Your task to perform on an android device: turn off smart reply in the gmail app Image 0: 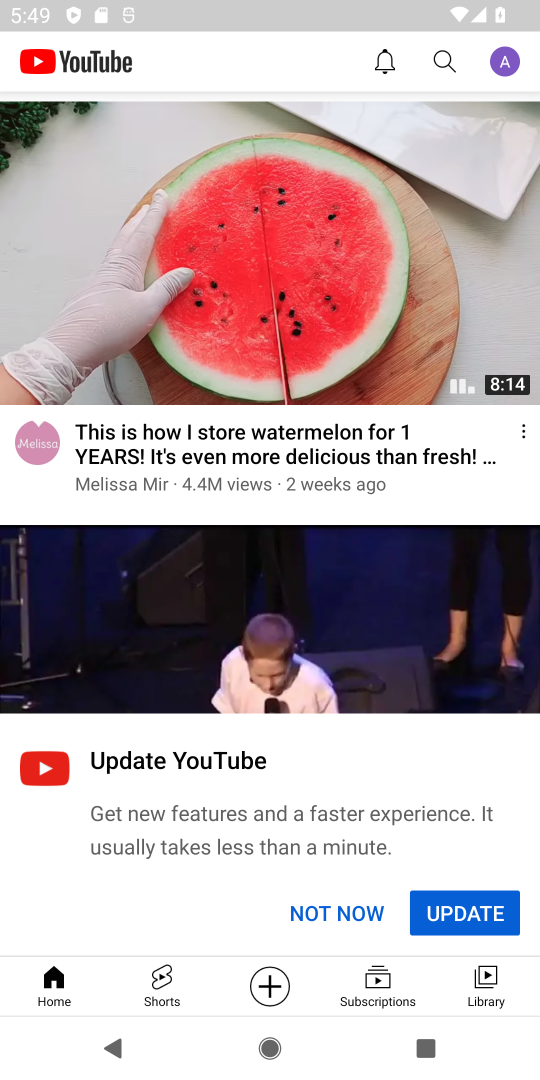
Step 0: press home button
Your task to perform on an android device: turn off smart reply in the gmail app Image 1: 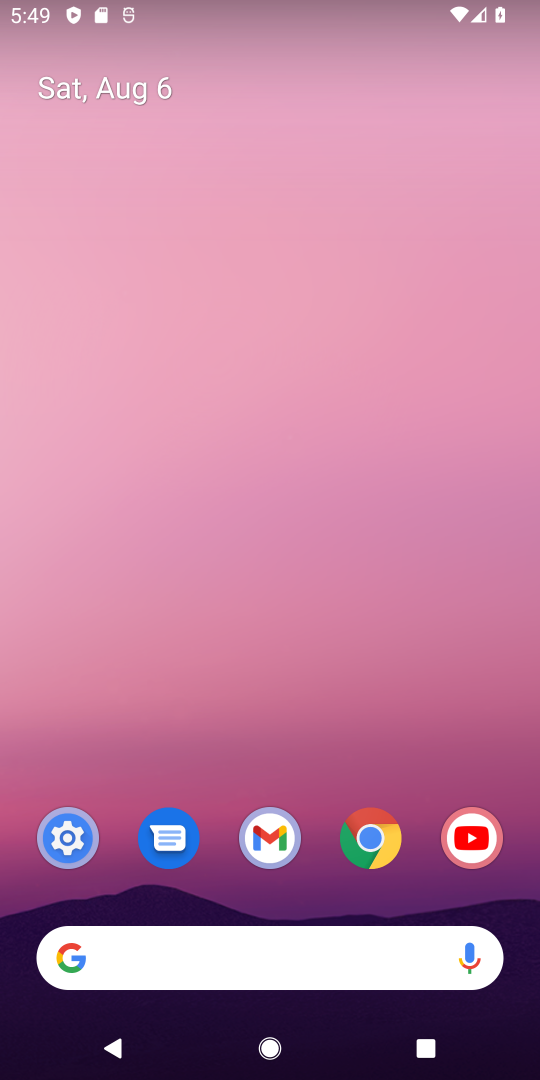
Step 1: click (261, 838)
Your task to perform on an android device: turn off smart reply in the gmail app Image 2: 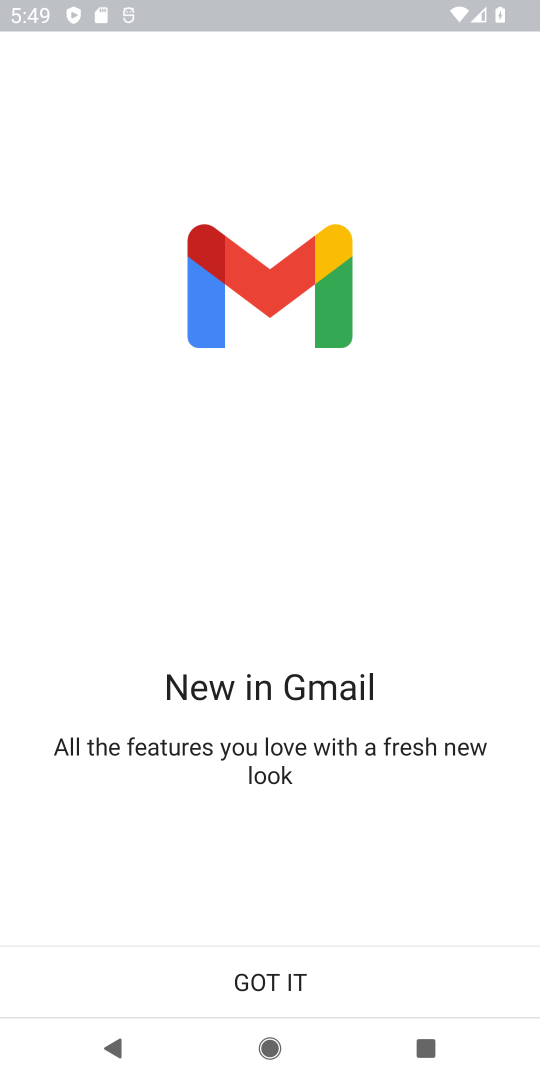
Step 2: click (233, 974)
Your task to perform on an android device: turn off smart reply in the gmail app Image 3: 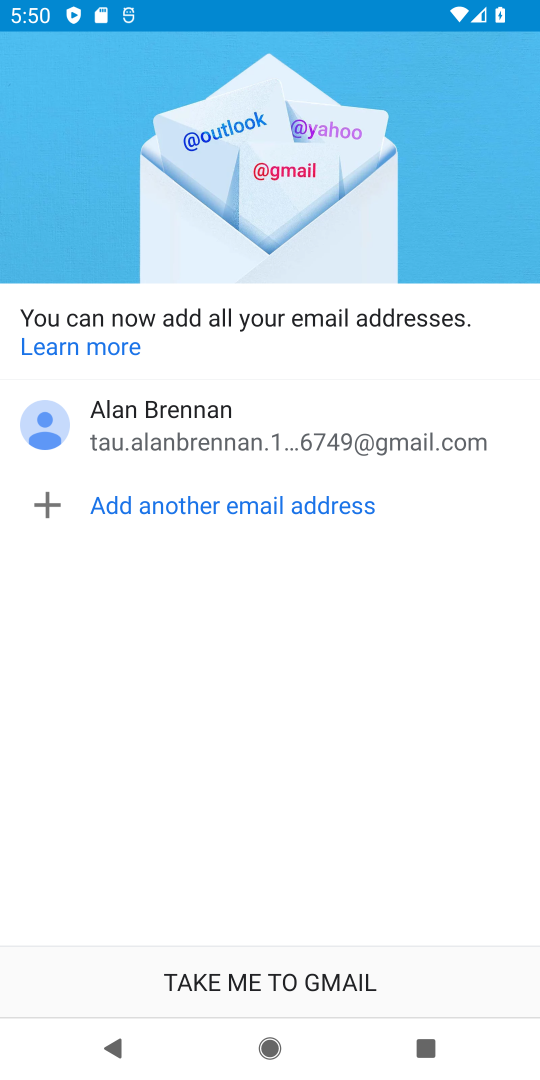
Step 3: click (253, 963)
Your task to perform on an android device: turn off smart reply in the gmail app Image 4: 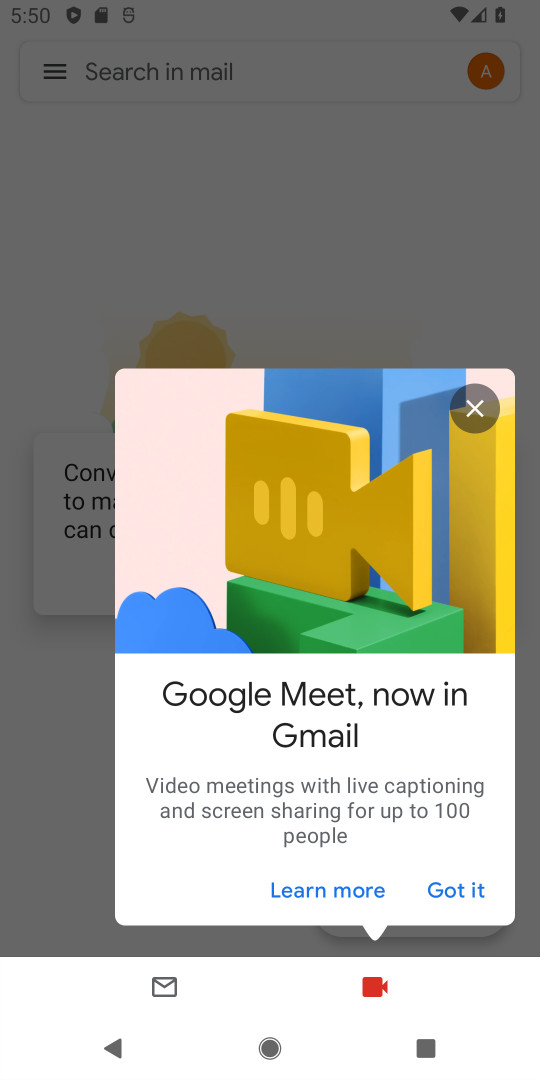
Step 4: click (437, 875)
Your task to perform on an android device: turn off smart reply in the gmail app Image 5: 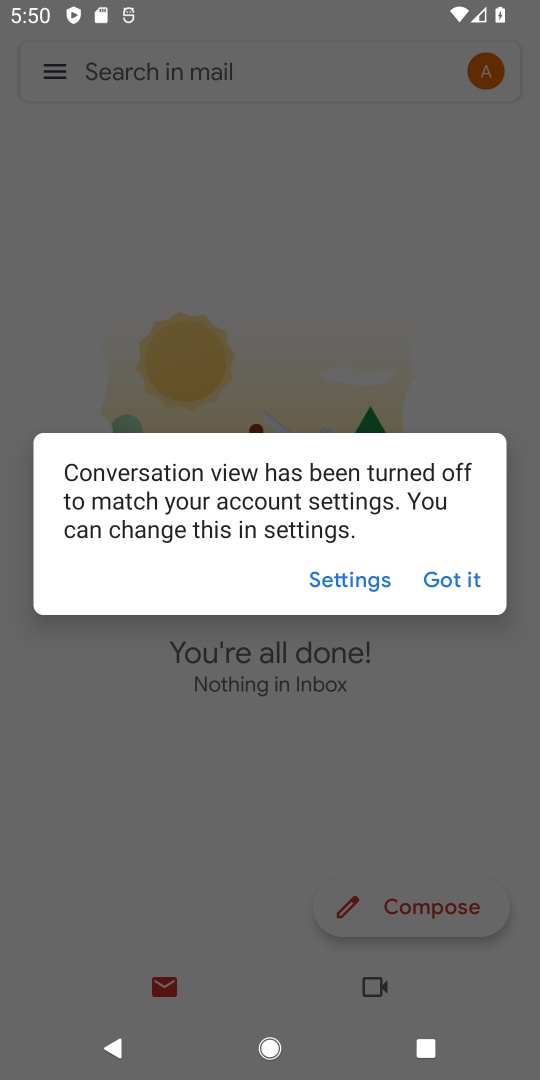
Step 5: click (454, 589)
Your task to perform on an android device: turn off smart reply in the gmail app Image 6: 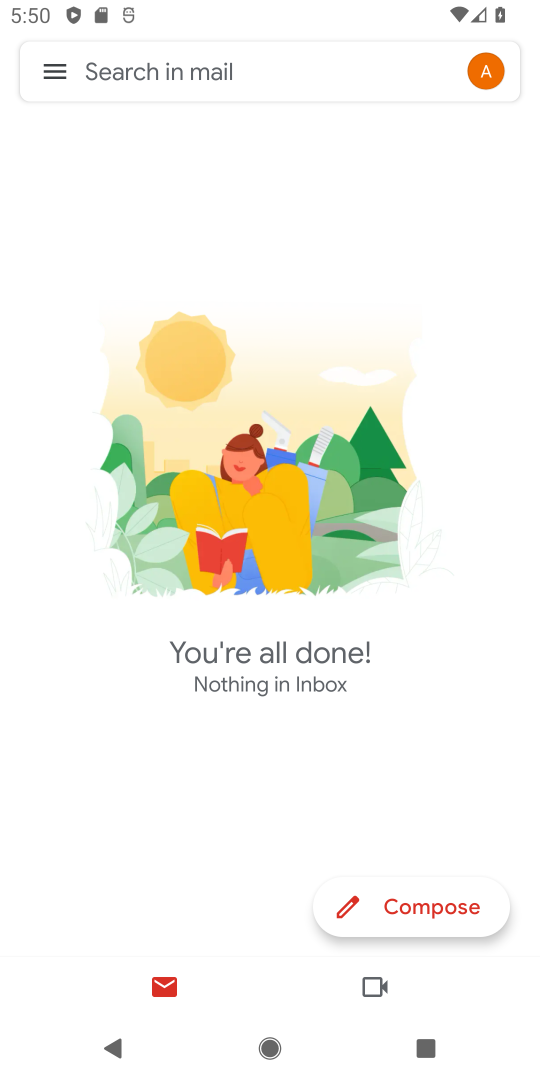
Step 6: click (49, 75)
Your task to perform on an android device: turn off smart reply in the gmail app Image 7: 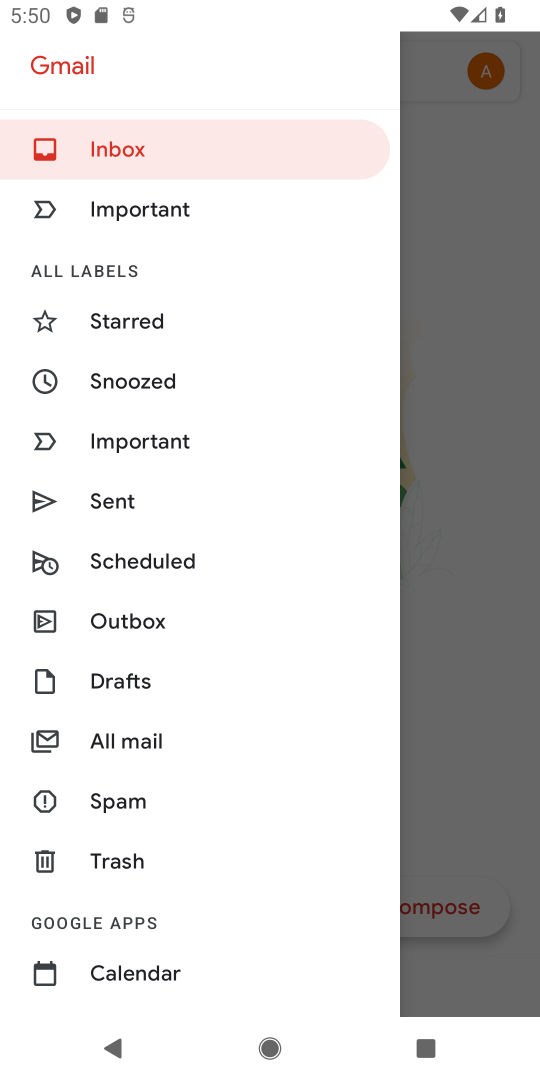
Step 7: drag from (153, 914) to (166, 275)
Your task to perform on an android device: turn off smart reply in the gmail app Image 8: 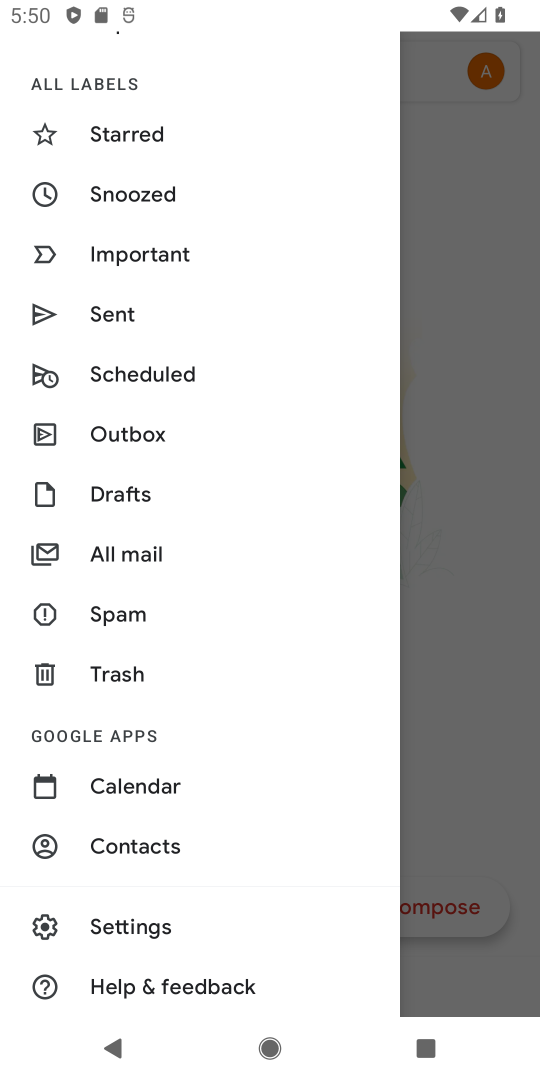
Step 8: click (174, 928)
Your task to perform on an android device: turn off smart reply in the gmail app Image 9: 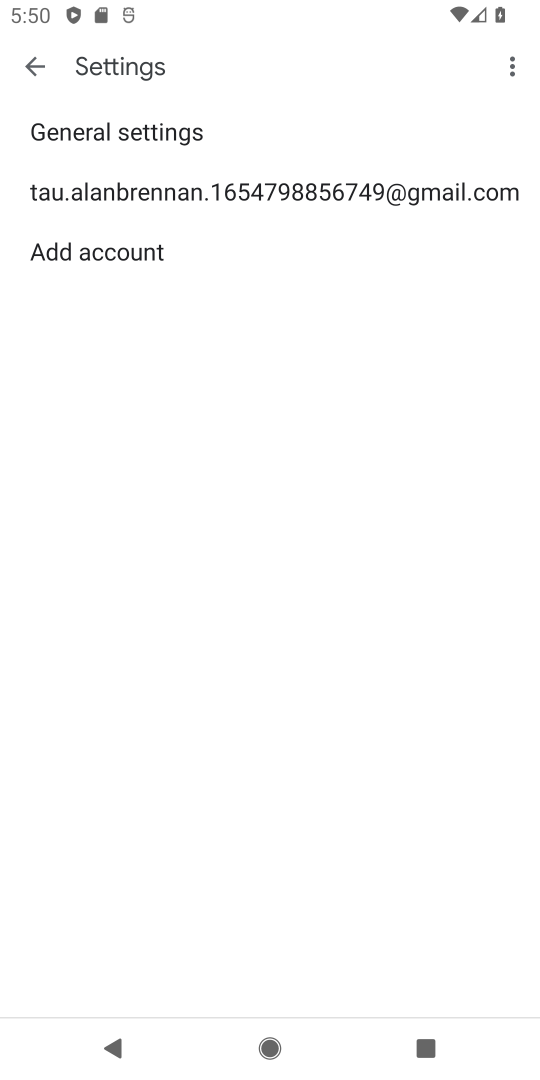
Step 9: click (334, 205)
Your task to perform on an android device: turn off smart reply in the gmail app Image 10: 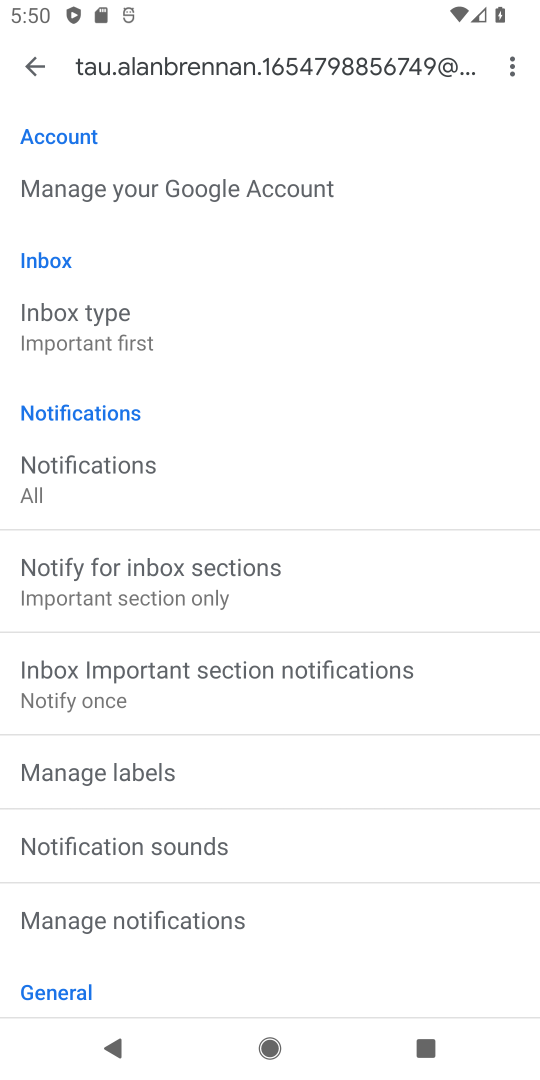
Step 10: drag from (174, 935) to (136, 407)
Your task to perform on an android device: turn off smart reply in the gmail app Image 11: 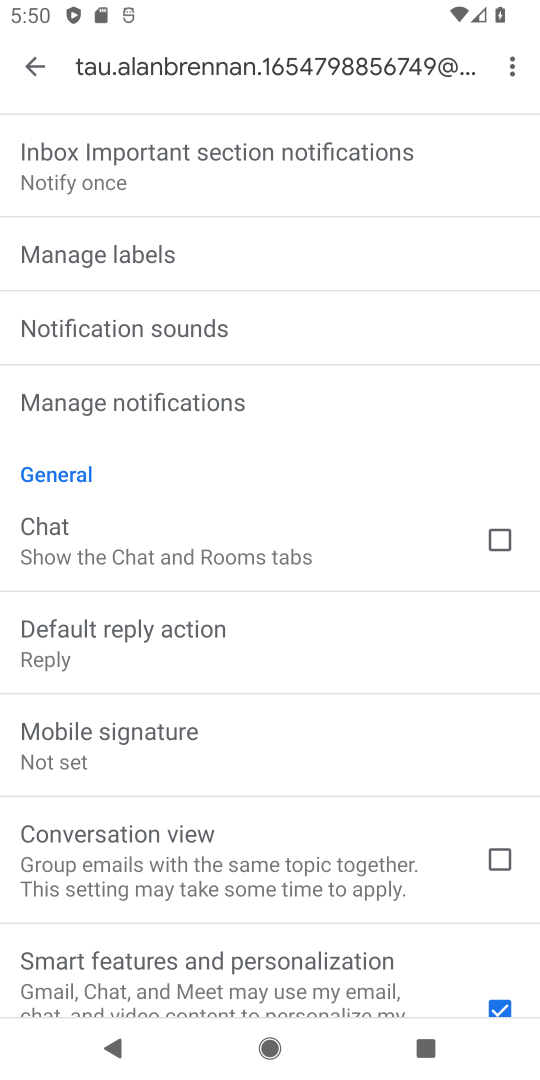
Step 11: drag from (183, 959) to (142, 565)
Your task to perform on an android device: turn off smart reply in the gmail app Image 12: 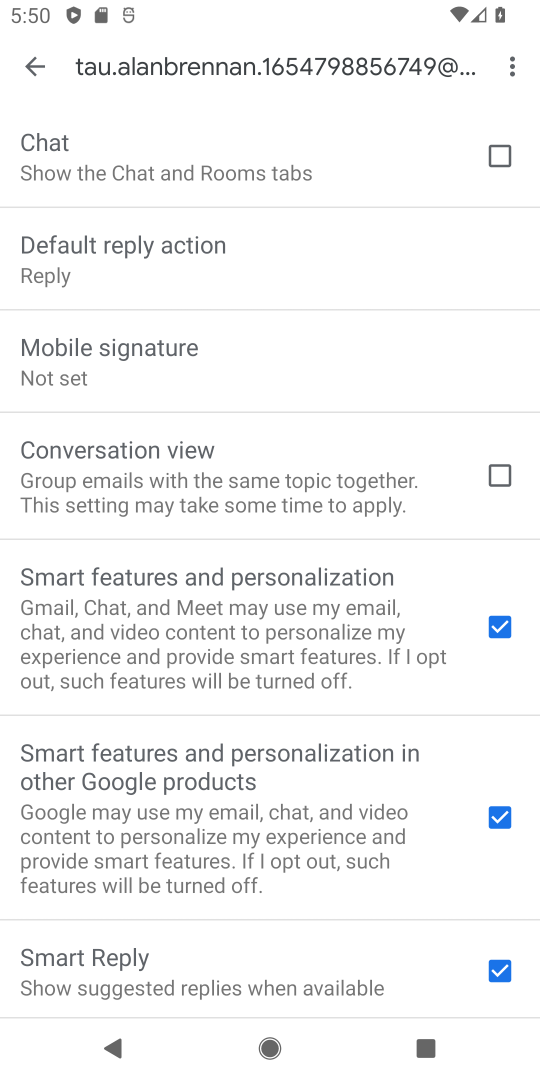
Step 12: click (493, 962)
Your task to perform on an android device: turn off smart reply in the gmail app Image 13: 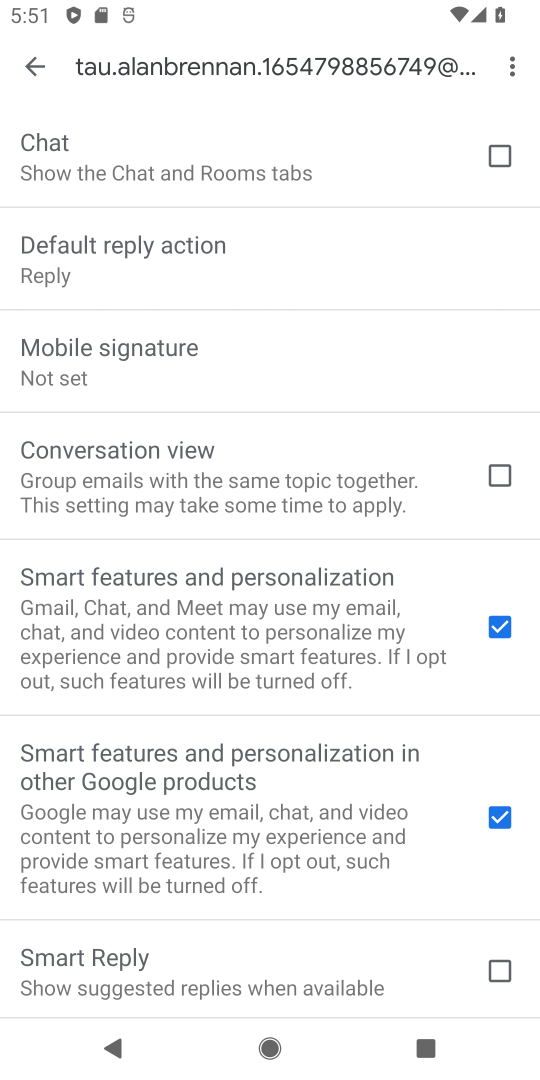
Step 13: task complete